Your task to perform on an android device: Open the map Image 0: 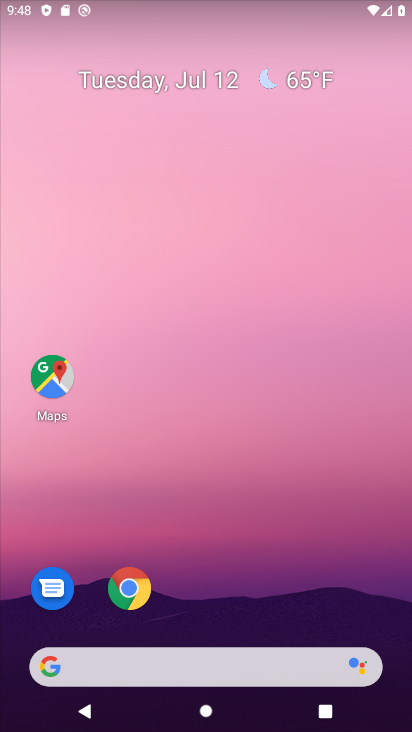
Step 0: click (53, 364)
Your task to perform on an android device: Open the map Image 1: 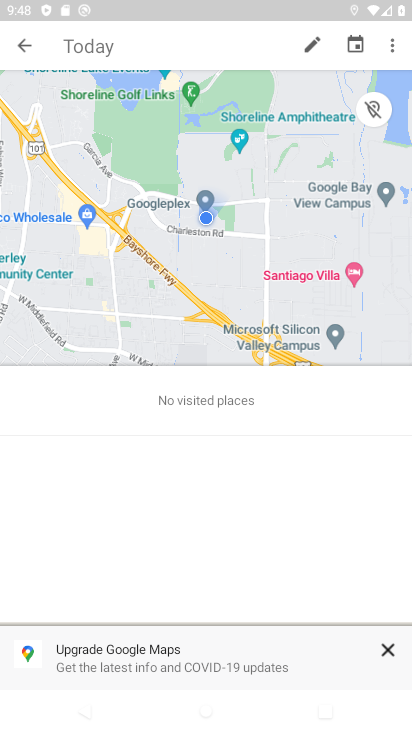
Step 1: task complete